Your task to perform on an android device: Open Chrome and go to settings Image 0: 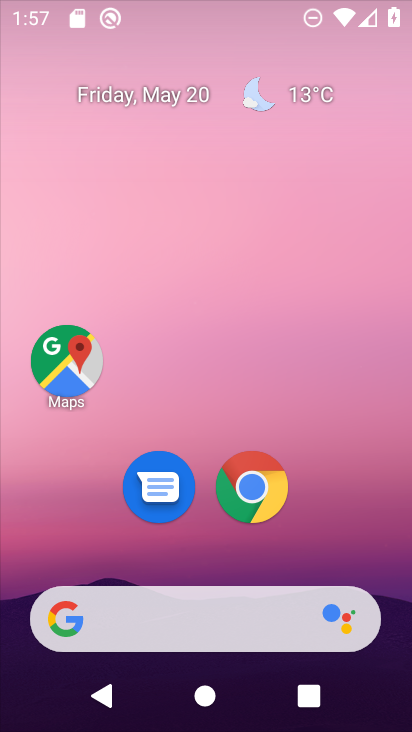
Step 0: press home button
Your task to perform on an android device: Open Chrome and go to settings Image 1: 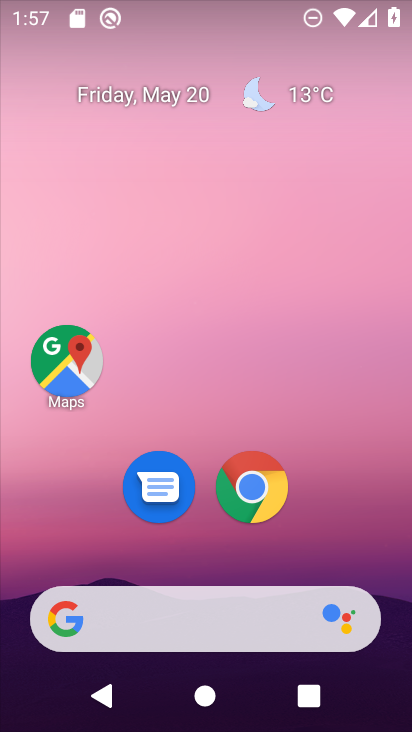
Step 1: drag from (205, 556) to (219, 78)
Your task to perform on an android device: Open Chrome and go to settings Image 2: 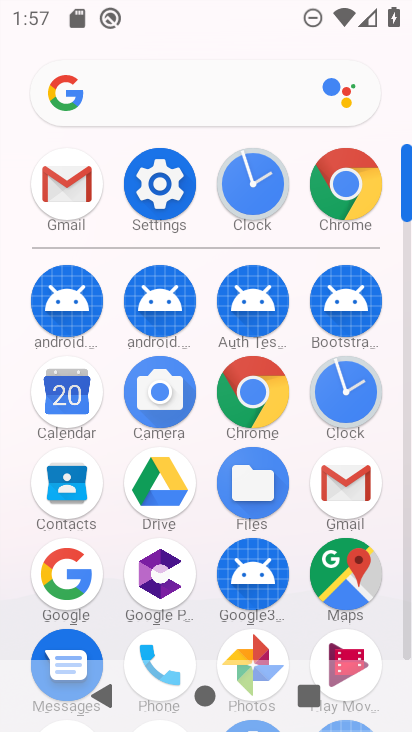
Step 2: click (341, 174)
Your task to perform on an android device: Open Chrome and go to settings Image 3: 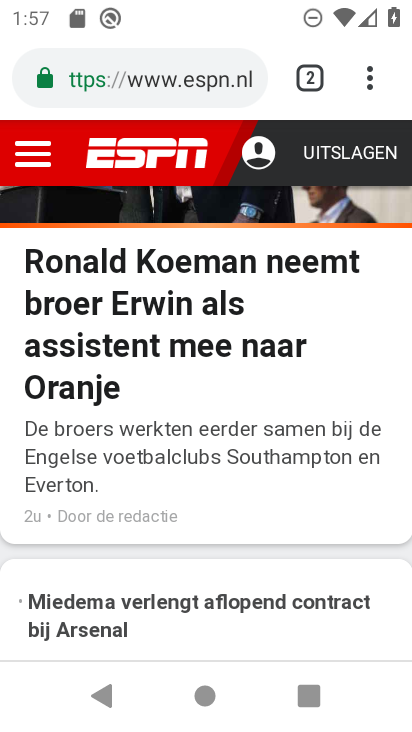
Step 3: click (370, 73)
Your task to perform on an android device: Open Chrome and go to settings Image 4: 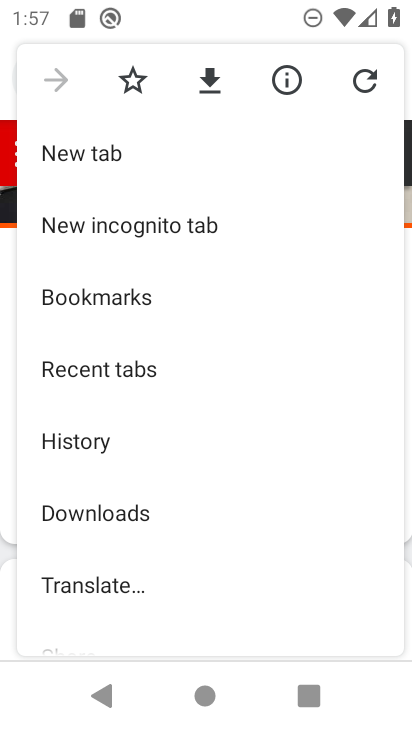
Step 4: drag from (200, 565) to (235, 218)
Your task to perform on an android device: Open Chrome and go to settings Image 5: 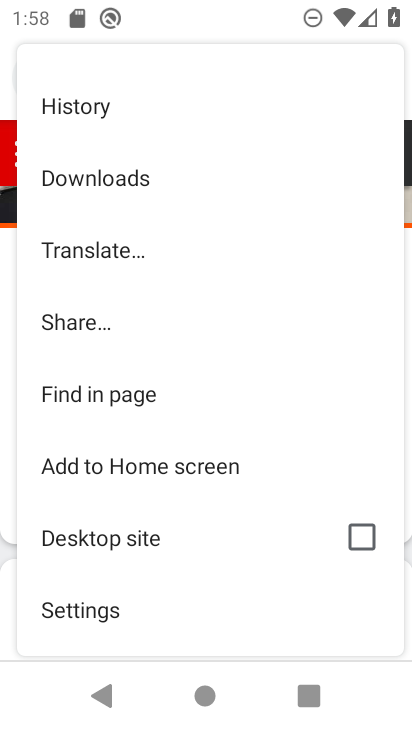
Step 5: drag from (169, 579) to (232, 297)
Your task to perform on an android device: Open Chrome and go to settings Image 6: 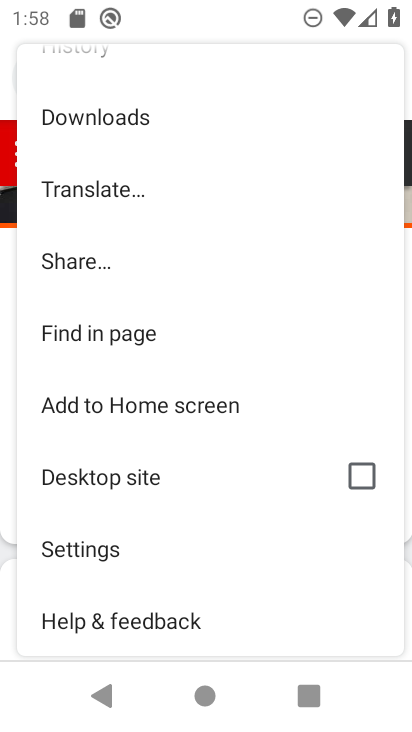
Step 6: click (125, 546)
Your task to perform on an android device: Open Chrome and go to settings Image 7: 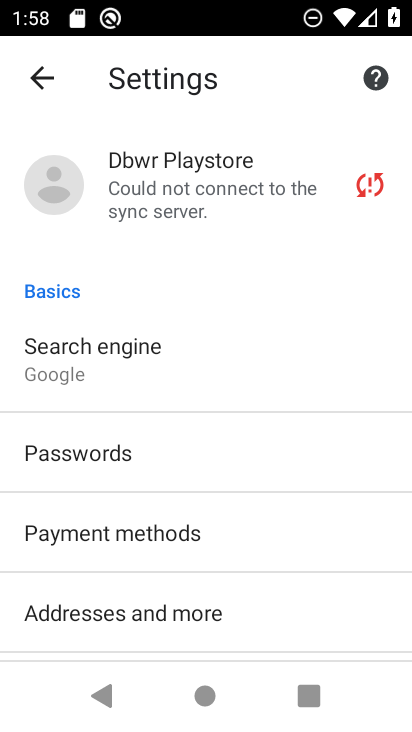
Step 7: task complete